Your task to perform on an android device: Show me popular videos on Youtube Image 0: 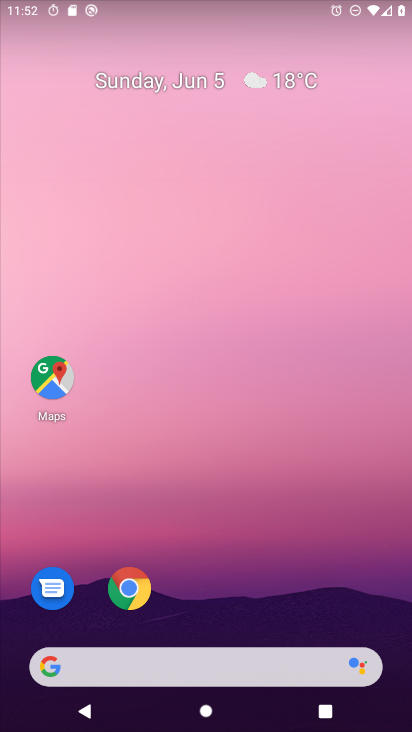
Step 0: drag from (371, 606) to (379, 204)
Your task to perform on an android device: Show me popular videos on Youtube Image 1: 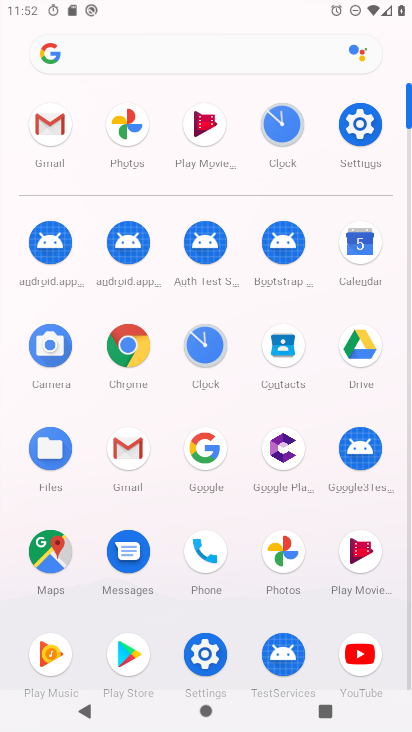
Step 1: click (361, 661)
Your task to perform on an android device: Show me popular videos on Youtube Image 2: 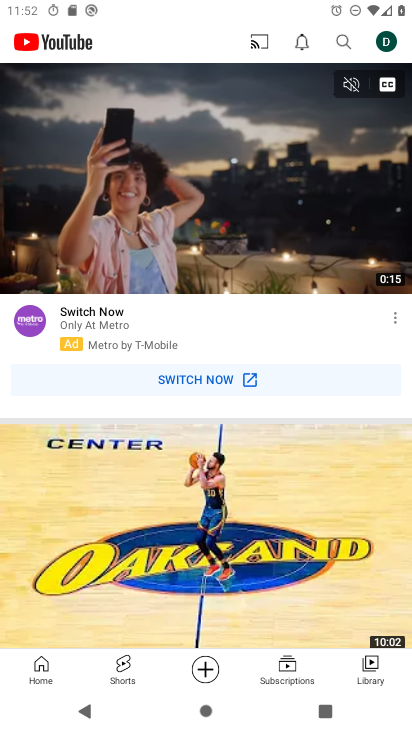
Step 2: task complete